Your task to perform on an android device: turn off location Image 0: 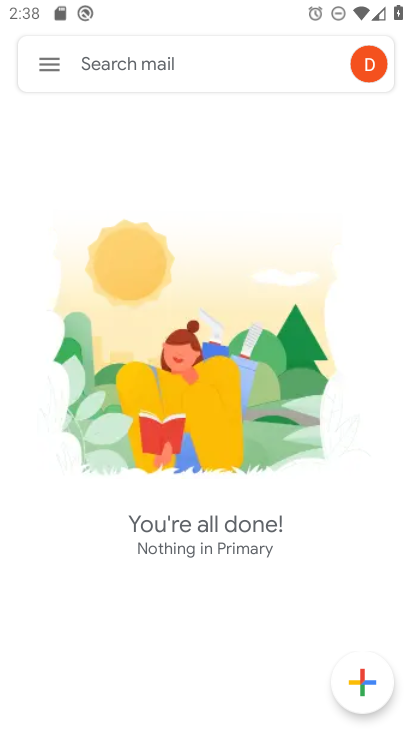
Step 0: press home button
Your task to perform on an android device: turn off location Image 1: 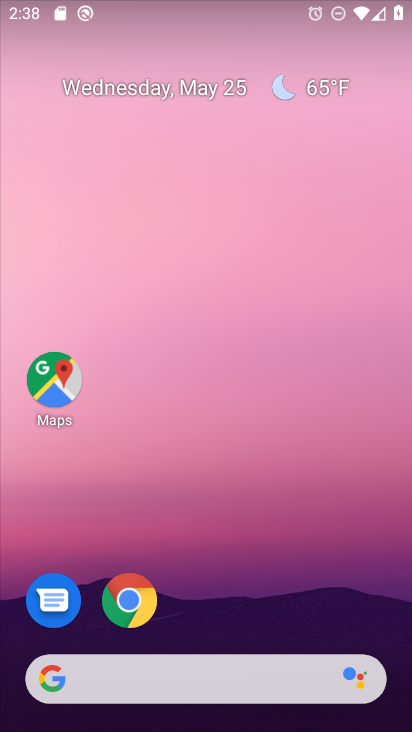
Step 1: drag from (302, 552) to (305, 126)
Your task to perform on an android device: turn off location Image 2: 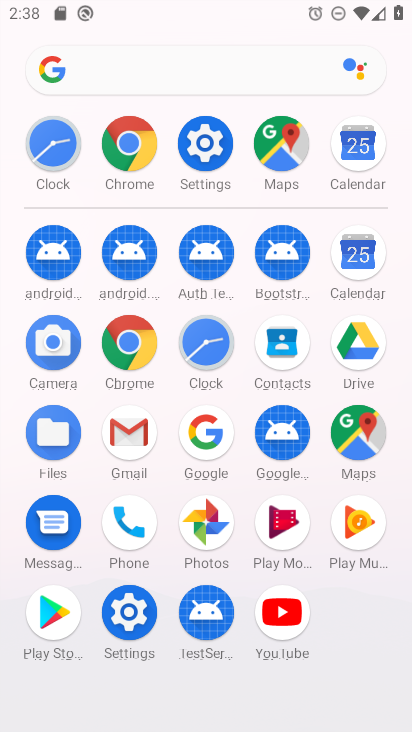
Step 2: click (210, 143)
Your task to perform on an android device: turn off location Image 3: 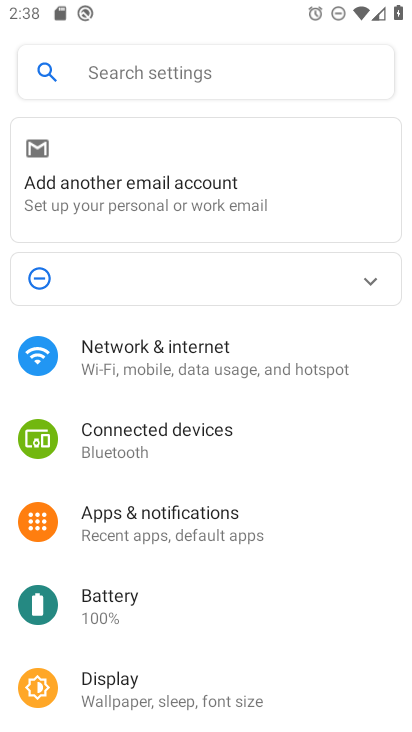
Step 3: drag from (89, 586) to (172, 194)
Your task to perform on an android device: turn off location Image 4: 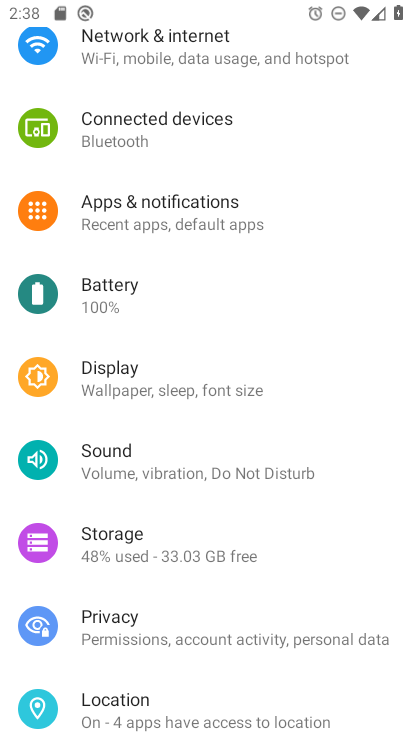
Step 4: drag from (177, 518) to (210, 171)
Your task to perform on an android device: turn off location Image 5: 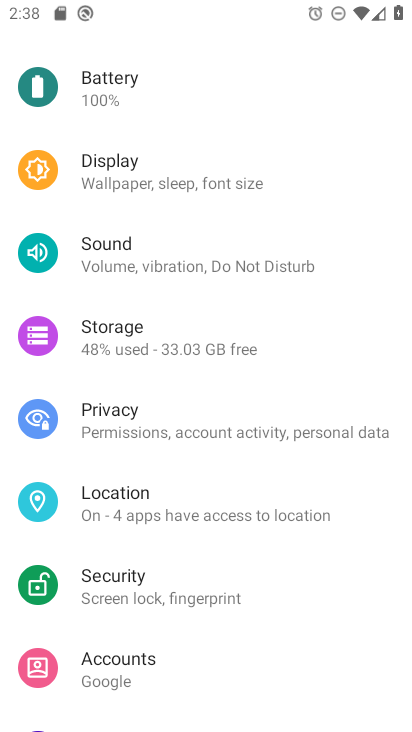
Step 5: click (145, 513)
Your task to perform on an android device: turn off location Image 6: 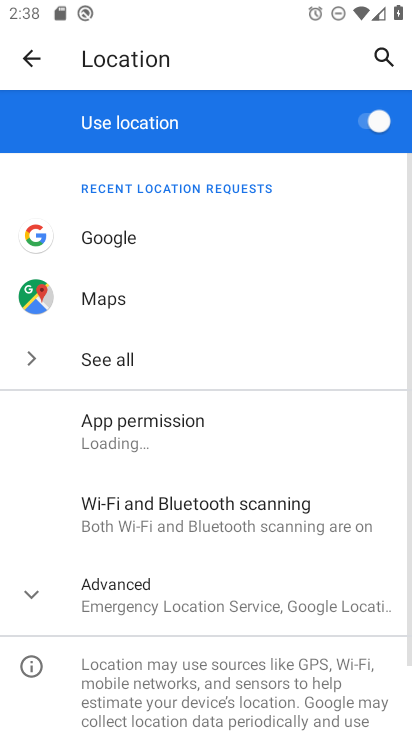
Step 6: click (375, 106)
Your task to perform on an android device: turn off location Image 7: 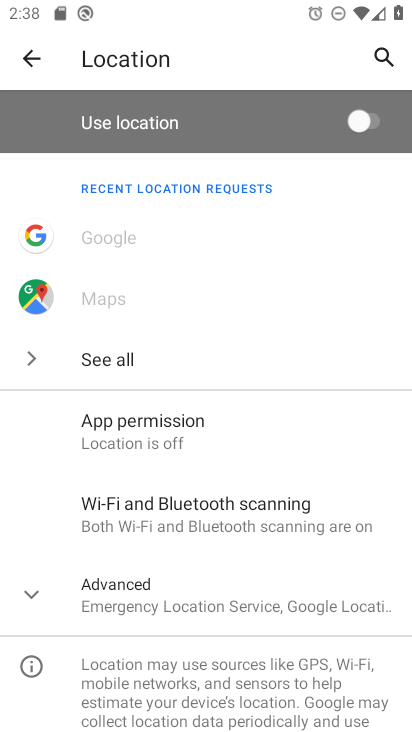
Step 7: task complete